Your task to perform on an android device: see sites visited before in the chrome app Image 0: 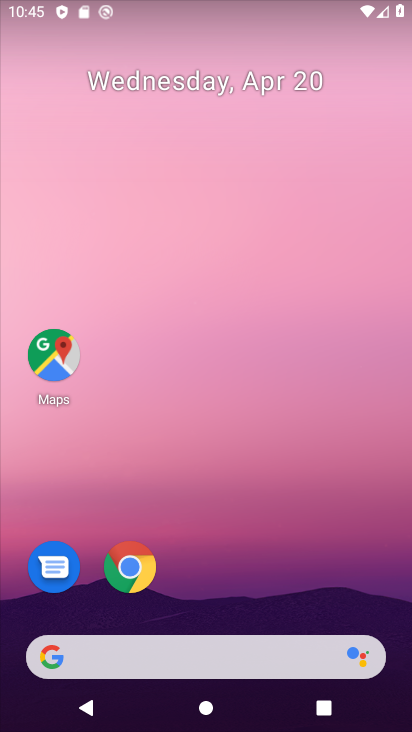
Step 0: click (131, 559)
Your task to perform on an android device: see sites visited before in the chrome app Image 1: 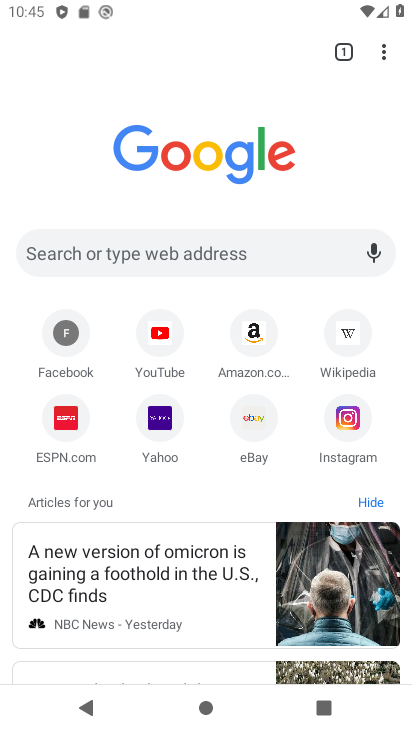
Step 1: click (385, 48)
Your task to perform on an android device: see sites visited before in the chrome app Image 2: 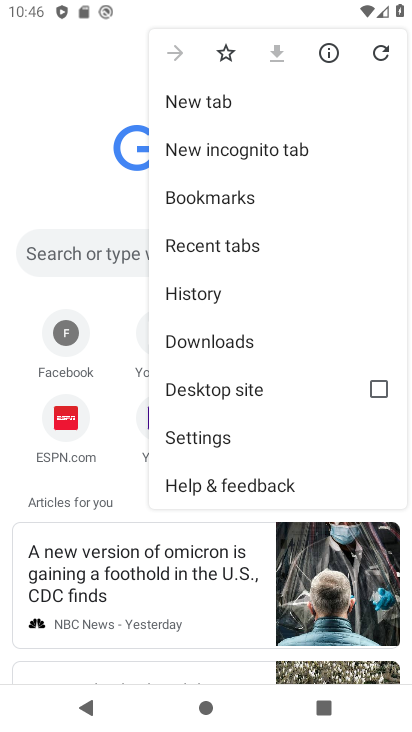
Step 2: click (247, 292)
Your task to perform on an android device: see sites visited before in the chrome app Image 3: 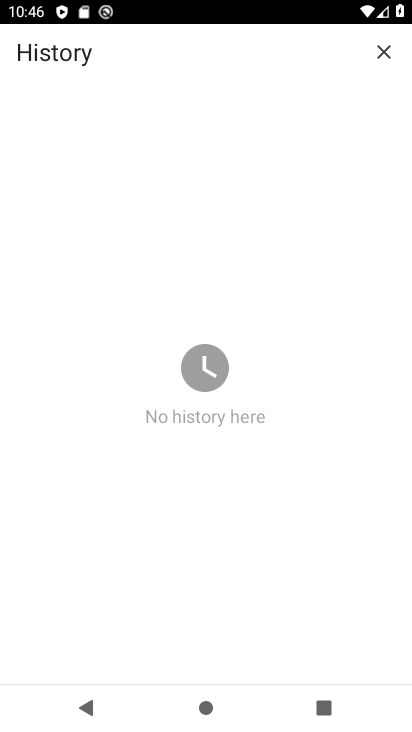
Step 3: task complete